Your task to perform on an android device: check storage Image 0: 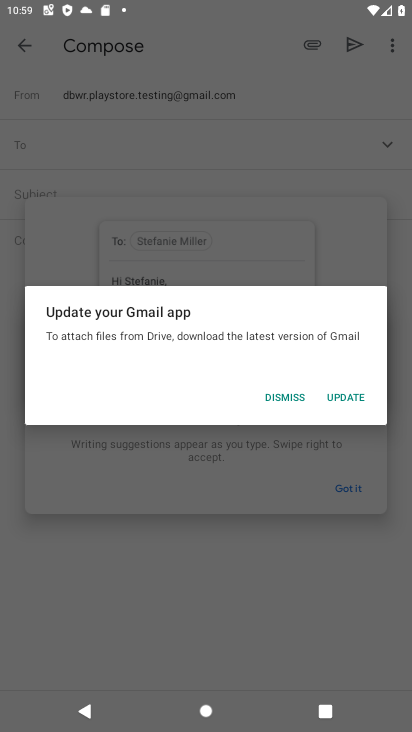
Step 0: press home button
Your task to perform on an android device: check storage Image 1: 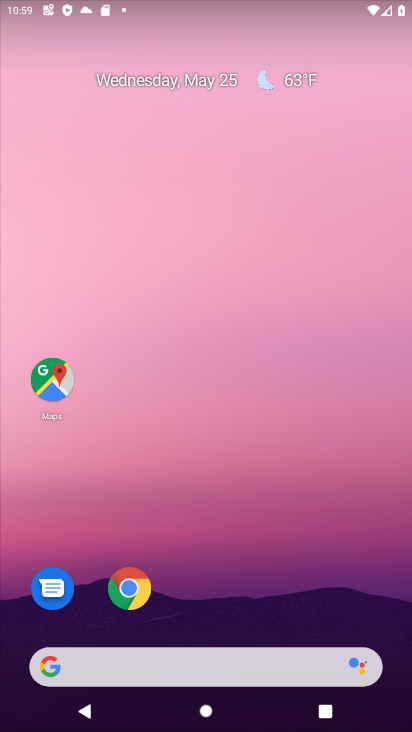
Step 1: drag from (324, 563) to (356, 4)
Your task to perform on an android device: check storage Image 2: 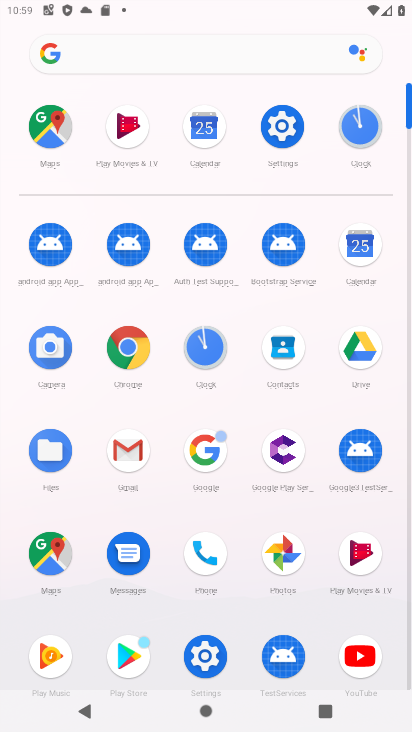
Step 2: click (227, 659)
Your task to perform on an android device: check storage Image 3: 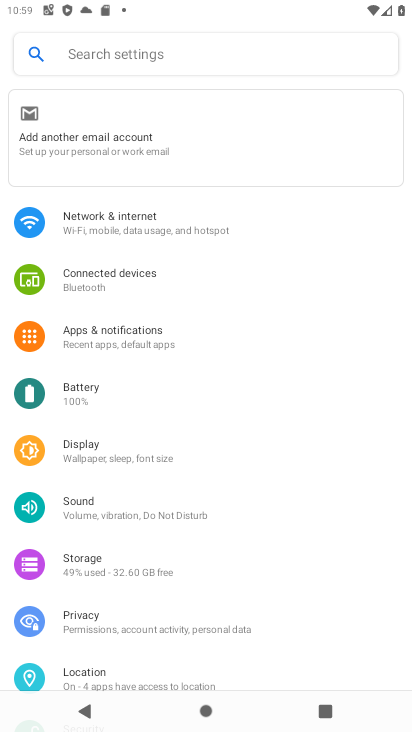
Step 3: click (177, 567)
Your task to perform on an android device: check storage Image 4: 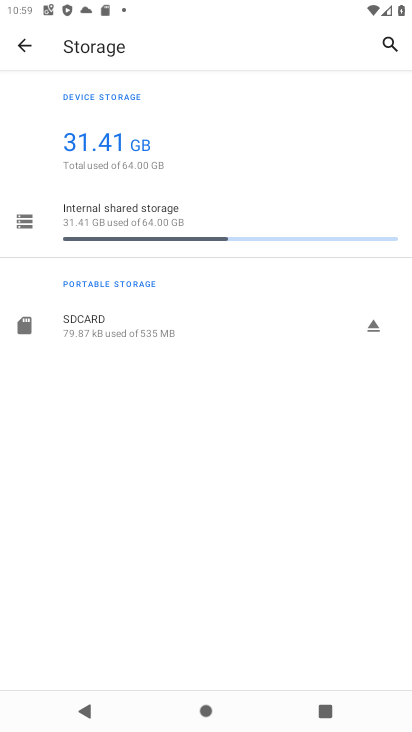
Step 4: task complete